Your task to perform on an android device: Go to location settings Image 0: 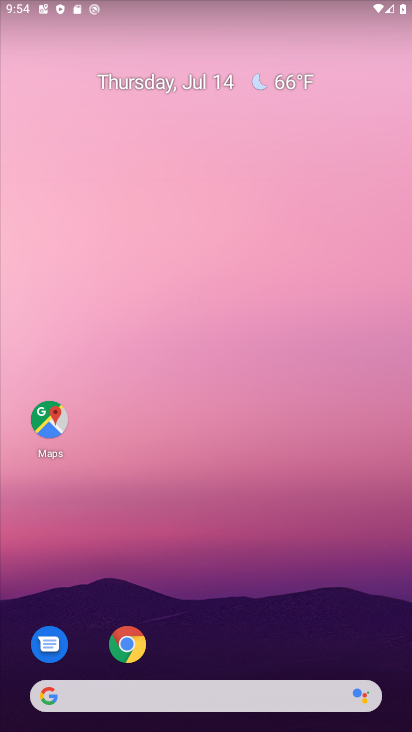
Step 0: drag from (263, 705) to (244, 381)
Your task to perform on an android device: Go to location settings Image 1: 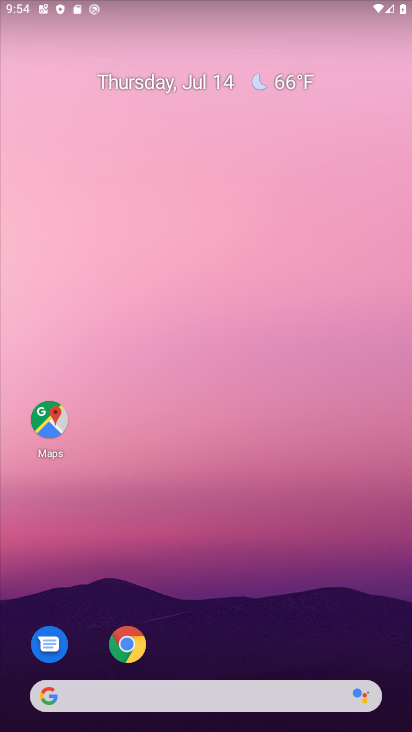
Step 1: drag from (219, 435) to (199, 91)
Your task to perform on an android device: Go to location settings Image 2: 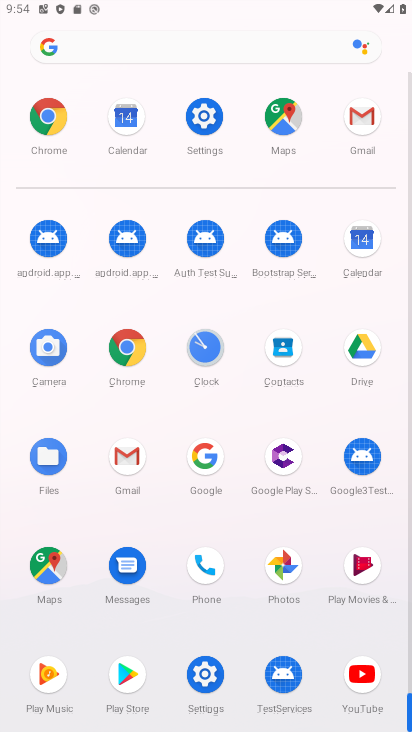
Step 2: click (192, 682)
Your task to perform on an android device: Go to location settings Image 3: 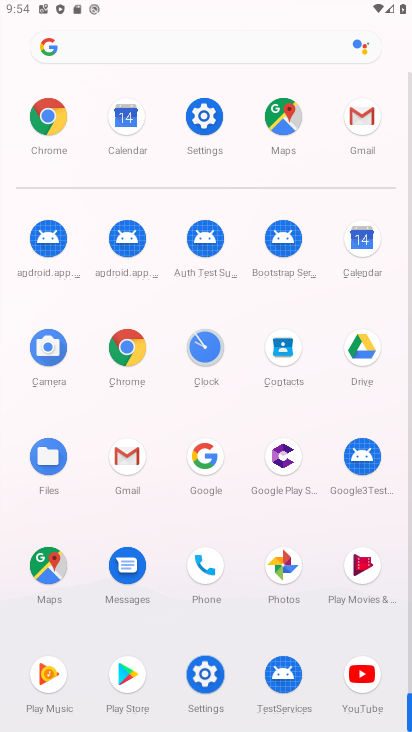
Step 3: click (196, 679)
Your task to perform on an android device: Go to location settings Image 4: 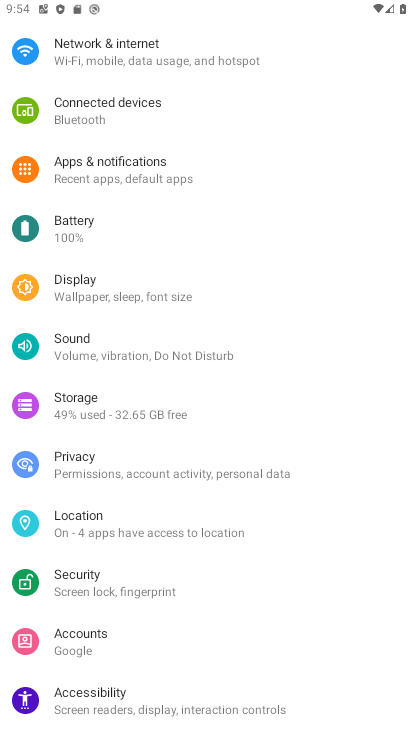
Step 4: click (201, 665)
Your task to perform on an android device: Go to location settings Image 5: 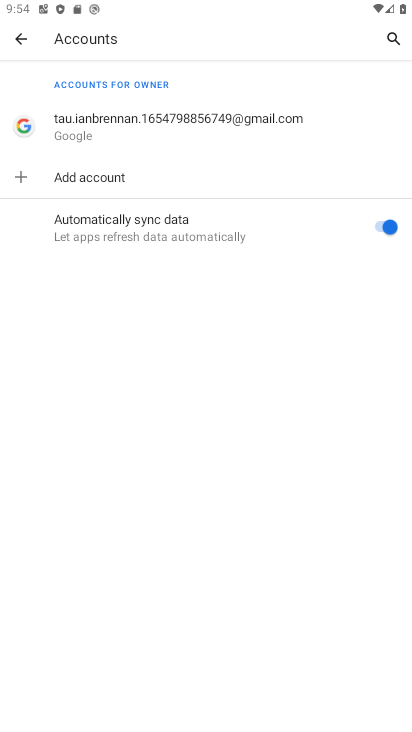
Step 5: click (94, 518)
Your task to perform on an android device: Go to location settings Image 6: 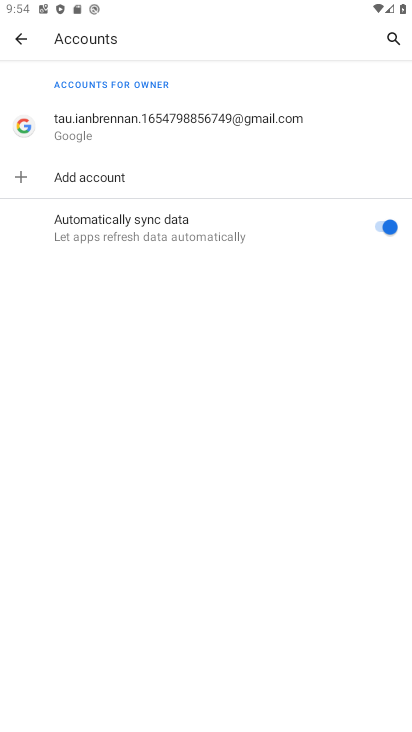
Step 6: click (13, 32)
Your task to perform on an android device: Go to location settings Image 7: 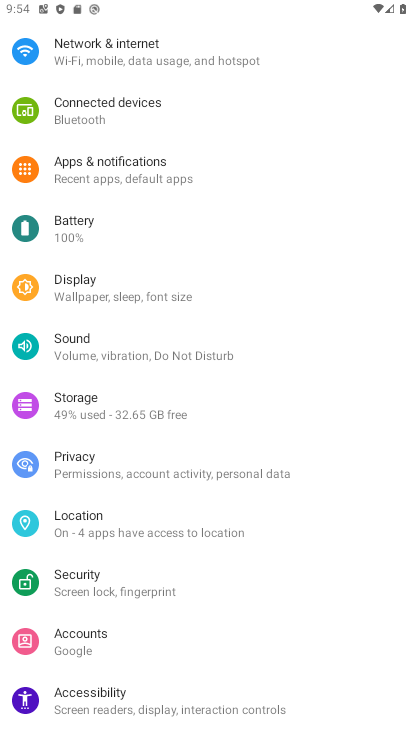
Step 7: click (84, 514)
Your task to perform on an android device: Go to location settings Image 8: 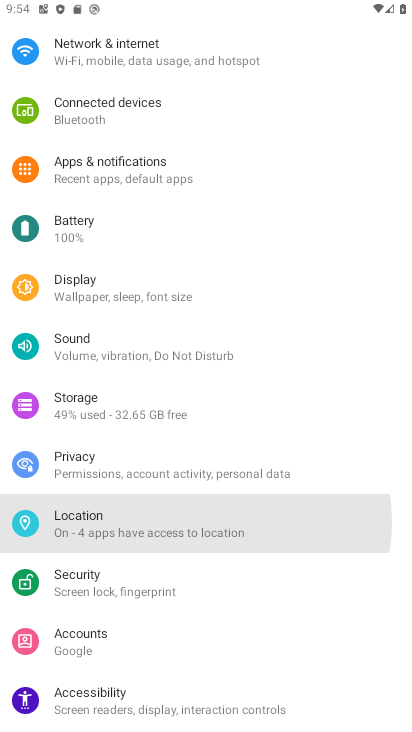
Step 8: click (84, 514)
Your task to perform on an android device: Go to location settings Image 9: 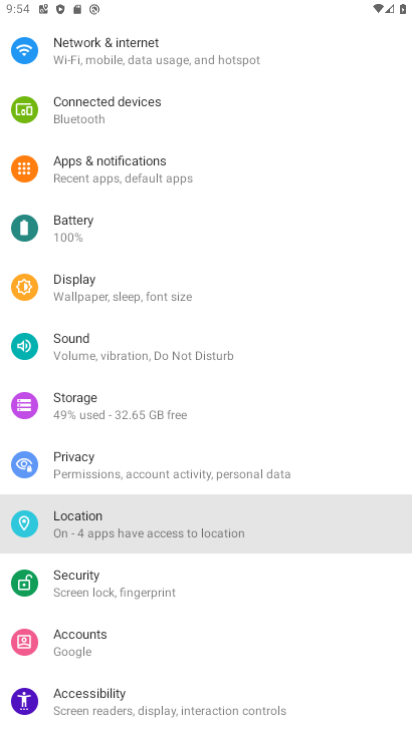
Step 9: click (80, 517)
Your task to perform on an android device: Go to location settings Image 10: 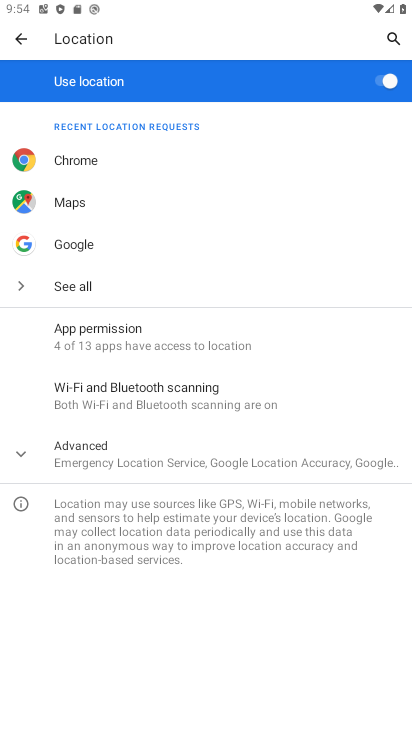
Step 10: click (99, 446)
Your task to perform on an android device: Go to location settings Image 11: 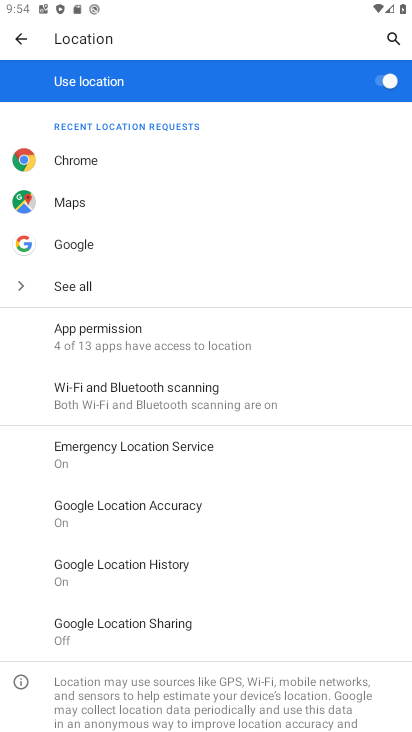
Step 11: task complete